Your task to perform on an android device: Go to settings Image 0: 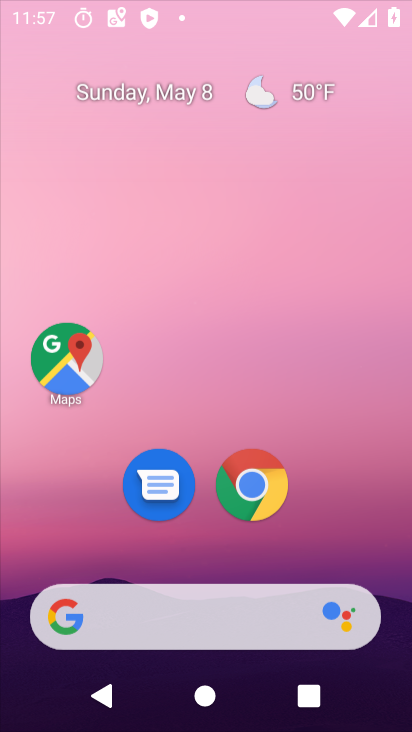
Step 0: click (272, 489)
Your task to perform on an android device: Go to settings Image 1: 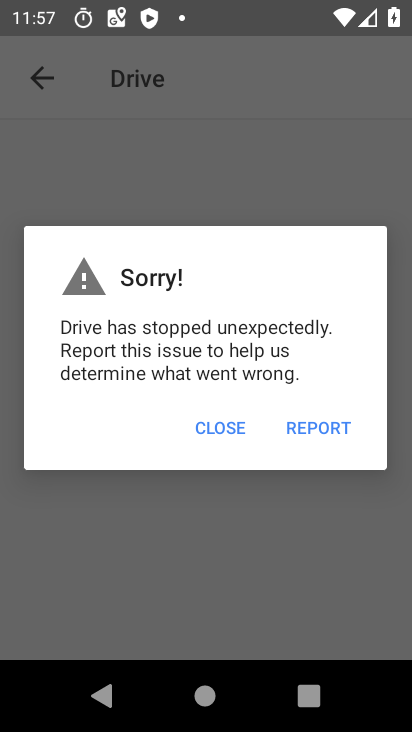
Step 1: press home button
Your task to perform on an android device: Go to settings Image 2: 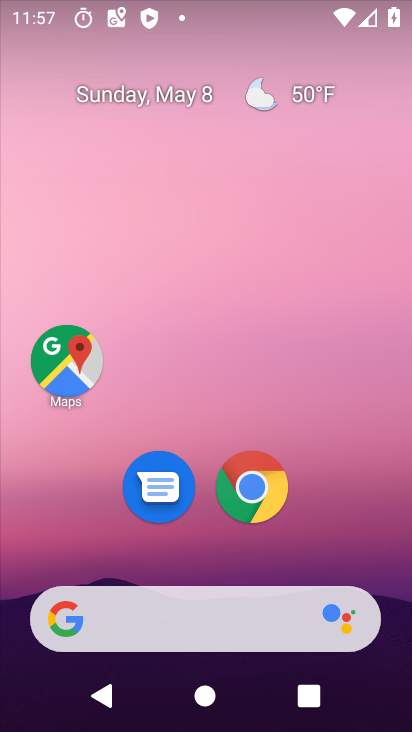
Step 2: drag from (311, 544) to (369, 91)
Your task to perform on an android device: Go to settings Image 3: 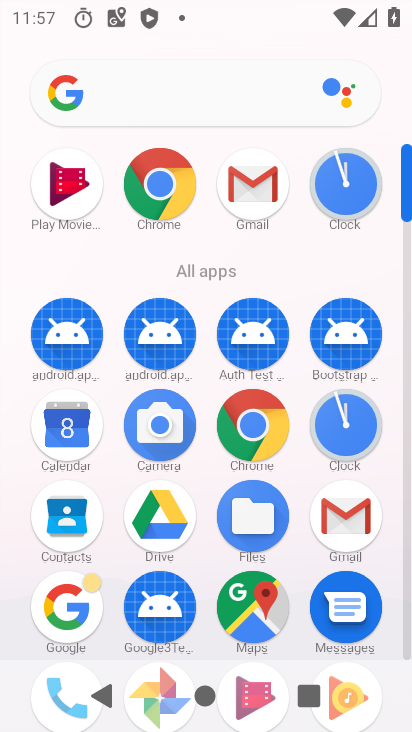
Step 3: drag from (243, 566) to (267, 128)
Your task to perform on an android device: Go to settings Image 4: 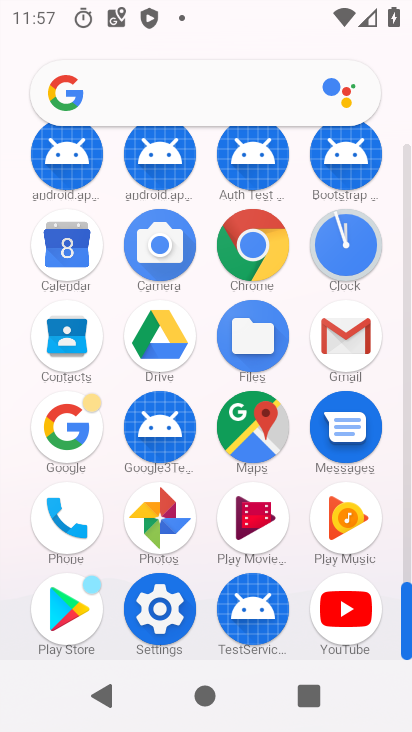
Step 4: click (179, 598)
Your task to perform on an android device: Go to settings Image 5: 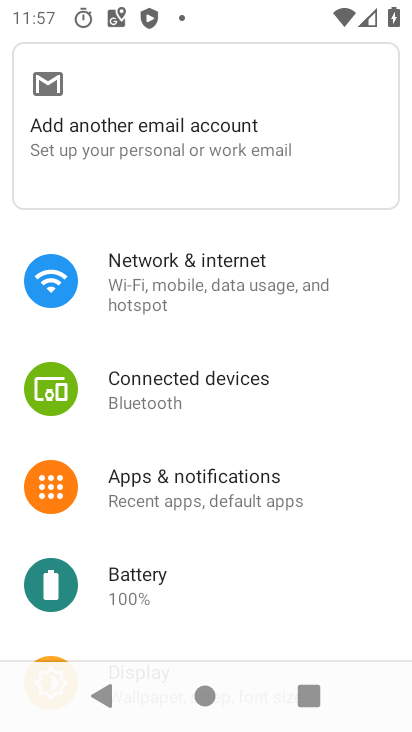
Step 5: task complete